Your task to perform on an android device: Open Chrome and go to the settings page Image 0: 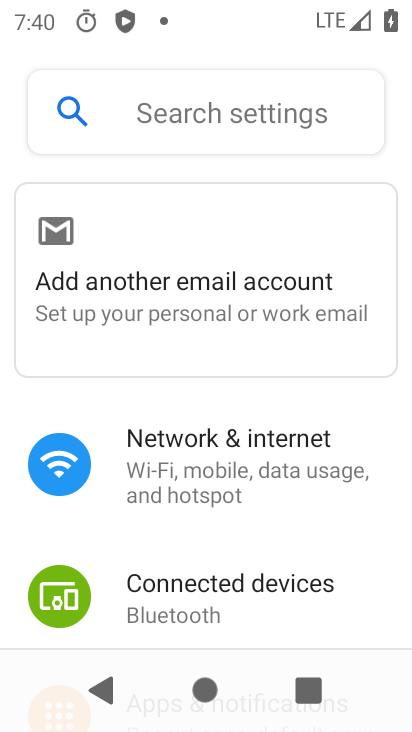
Step 0: press home button
Your task to perform on an android device: Open Chrome and go to the settings page Image 1: 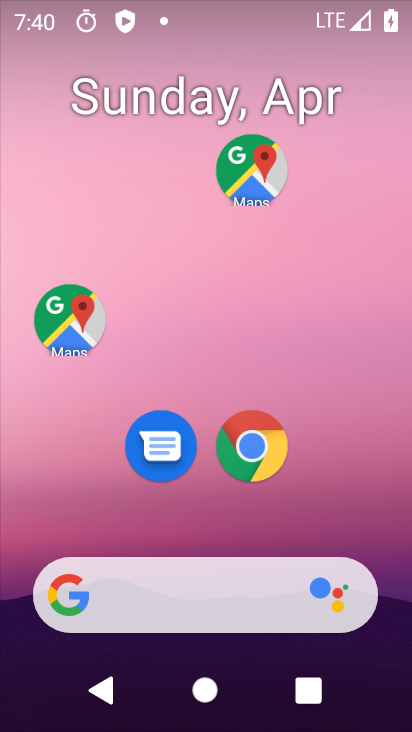
Step 1: drag from (190, 492) to (232, 37)
Your task to perform on an android device: Open Chrome and go to the settings page Image 2: 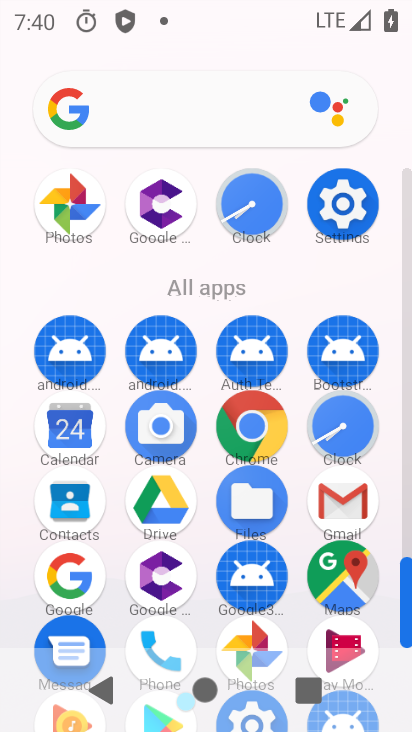
Step 2: click (227, 443)
Your task to perform on an android device: Open Chrome and go to the settings page Image 3: 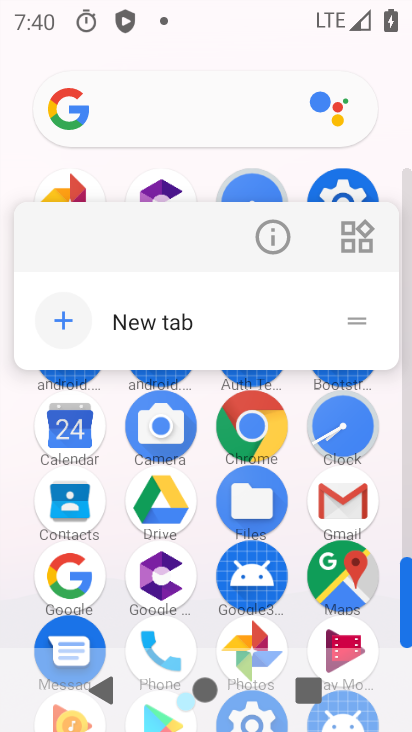
Step 3: click (242, 444)
Your task to perform on an android device: Open Chrome and go to the settings page Image 4: 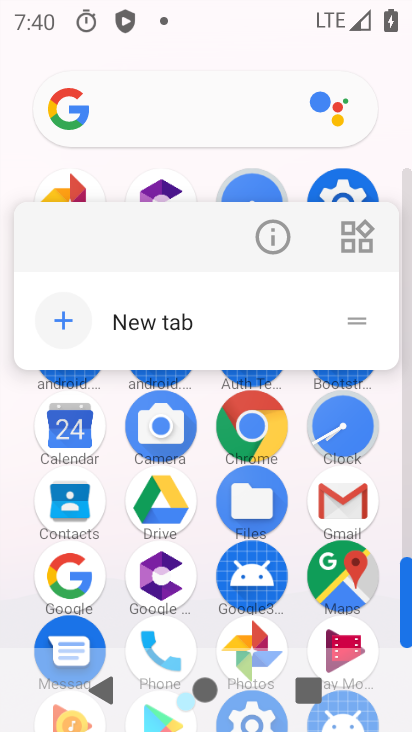
Step 4: click (248, 432)
Your task to perform on an android device: Open Chrome and go to the settings page Image 5: 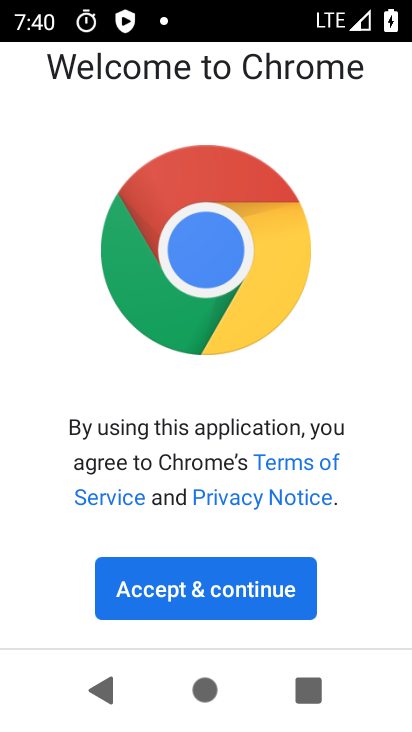
Step 5: click (225, 590)
Your task to perform on an android device: Open Chrome and go to the settings page Image 6: 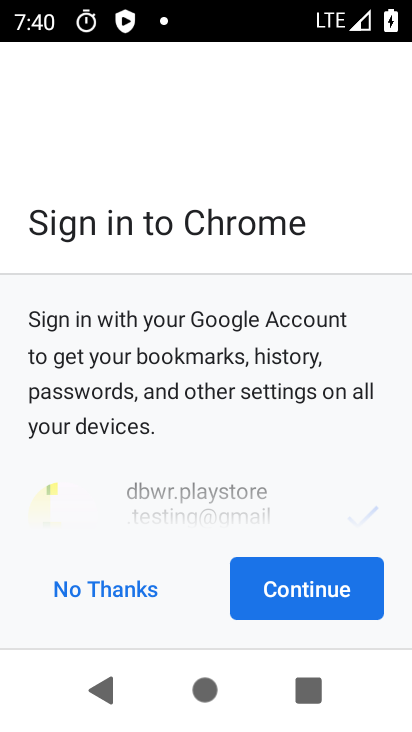
Step 6: click (265, 593)
Your task to perform on an android device: Open Chrome and go to the settings page Image 7: 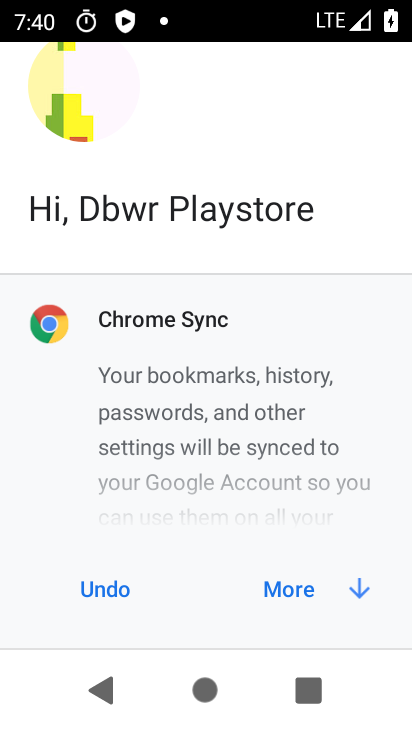
Step 7: click (278, 589)
Your task to perform on an android device: Open Chrome and go to the settings page Image 8: 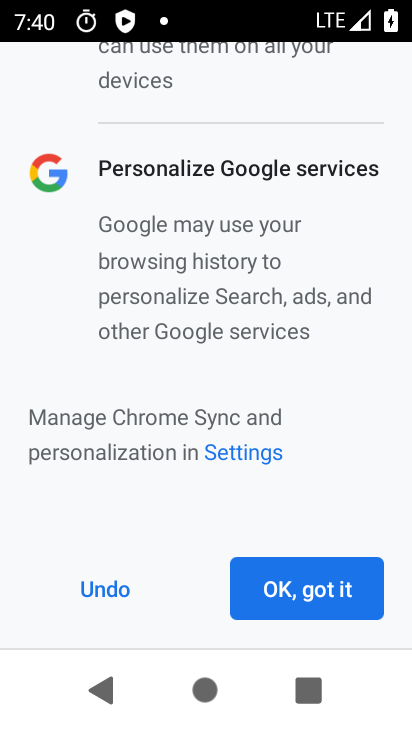
Step 8: click (288, 582)
Your task to perform on an android device: Open Chrome and go to the settings page Image 9: 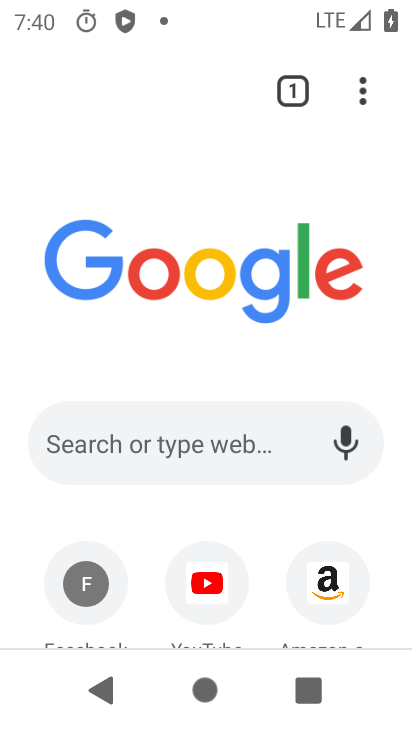
Step 9: task complete